Your task to perform on an android device: Find coffee shops on Maps Image 0: 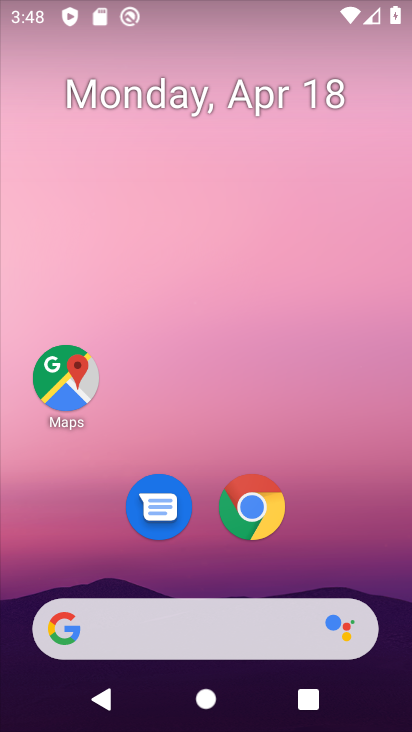
Step 0: click (75, 397)
Your task to perform on an android device: Find coffee shops on Maps Image 1: 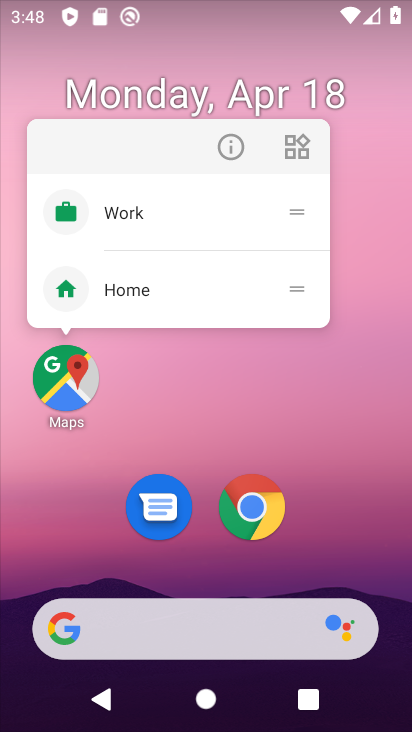
Step 1: click (57, 384)
Your task to perform on an android device: Find coffee shops on Maps Image 2: 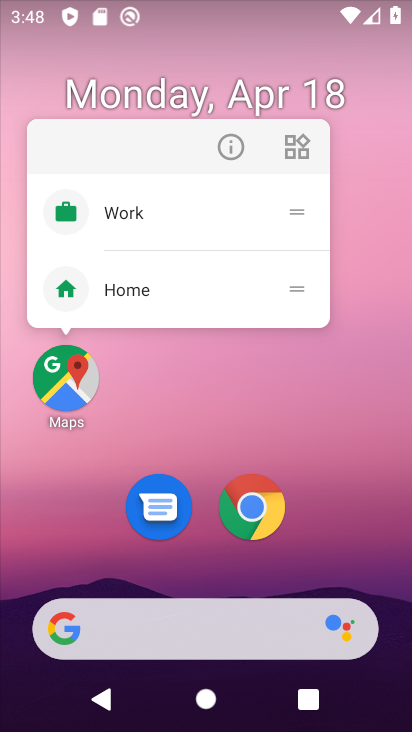
Step 2: click (98, 401)
Your task to perform on an android device: Find coffee shops on Maps Image 3: 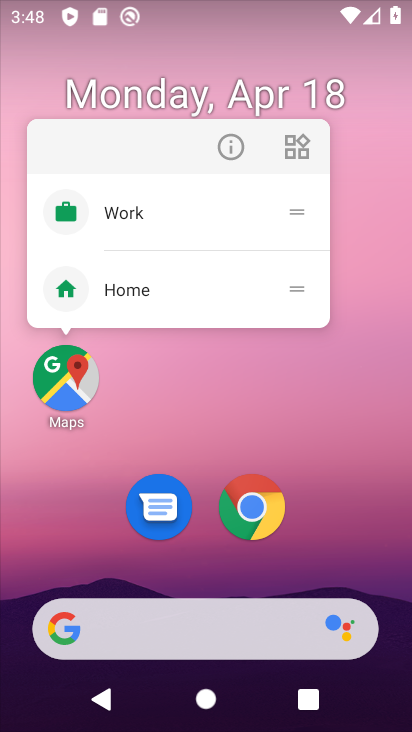
Step 3: click (64, 391)
Your task to perform on an android device: Find coffee shops on Maps Image 4: 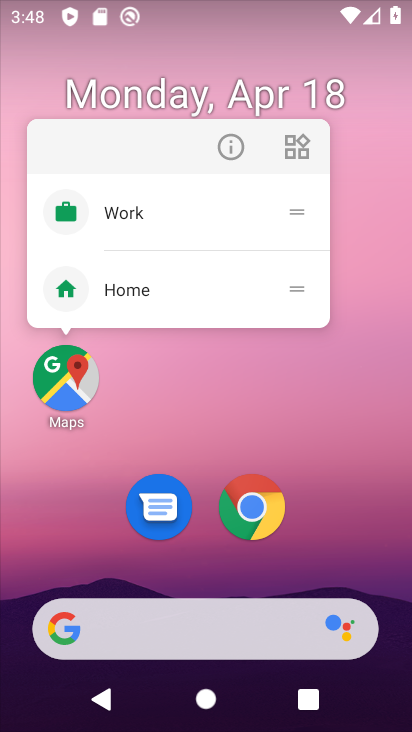
Step 4: click (64, 391)
Your task to perform on an android device: Find coffee shops on Maps Image 5: 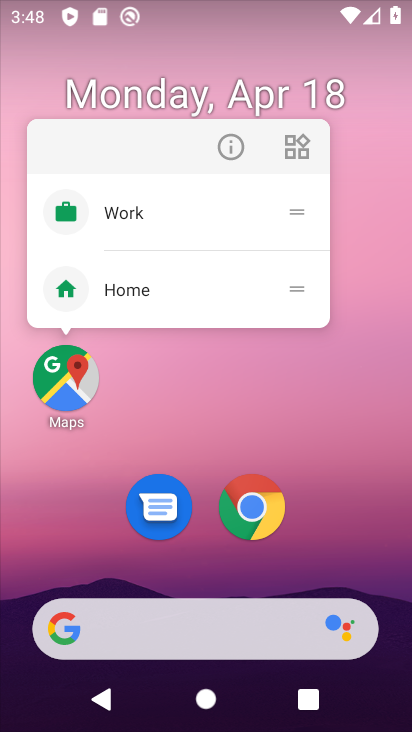
Step 5: click (53, 382)
Your task to perform on an android device: Find coffee shops on Maps Image 6: 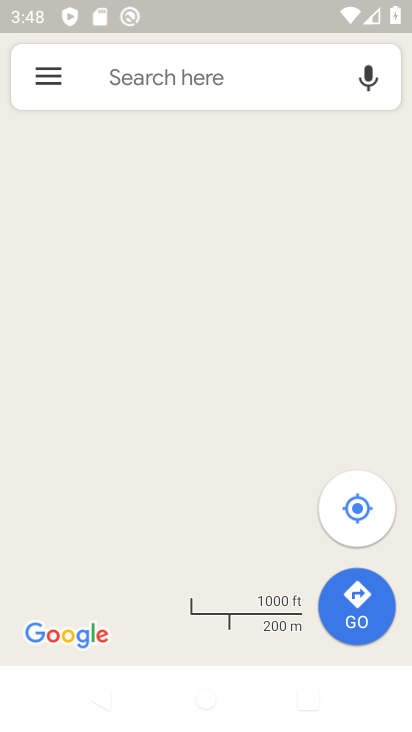
Step 6: click (248, 87)
Your task to perform on an android device: Find coffee shops on Maps Image 7: 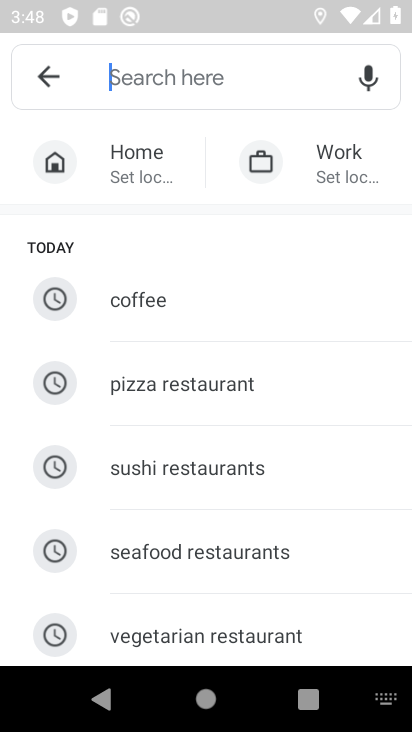
Step 7: type "coffee "
Your task to perform on an android device: Find coffee shops on Maps Image 8: 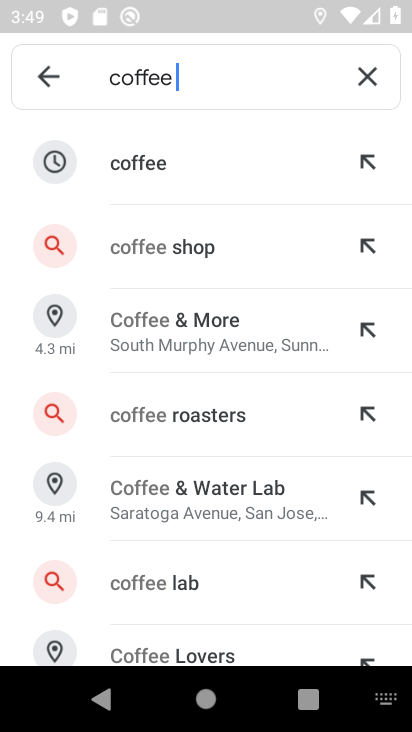
Step 8: click (219, 266)
Your task to perform on an android device: Find coffee shops on Maps Image 9: 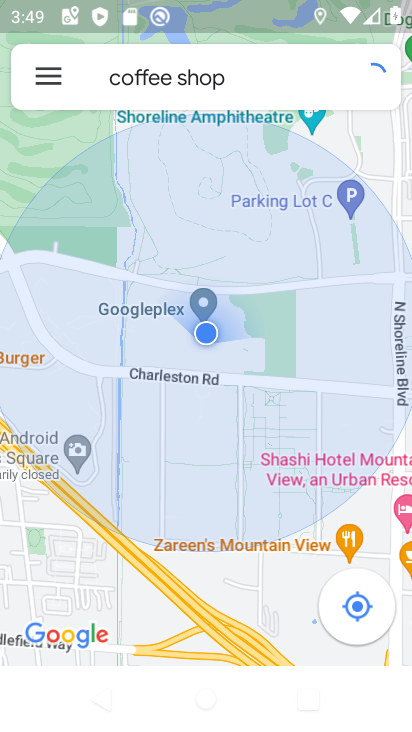
Step 9: task complete